Your task to perform on an android device: Open my contact list Image 0: 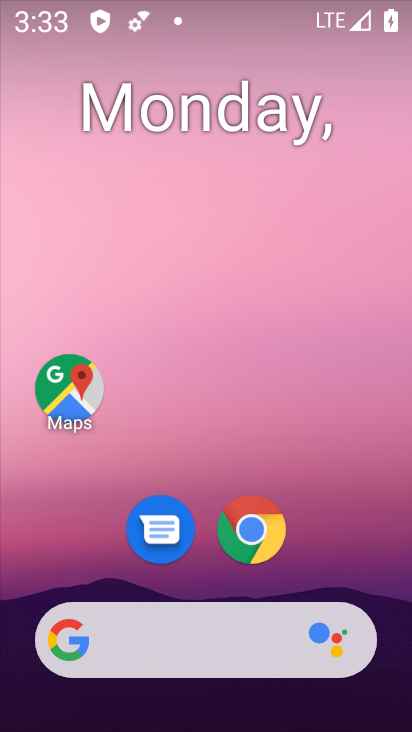
Step 0: click (249, 550)
Your task to perform on an android device: Open my contact list Image 1: 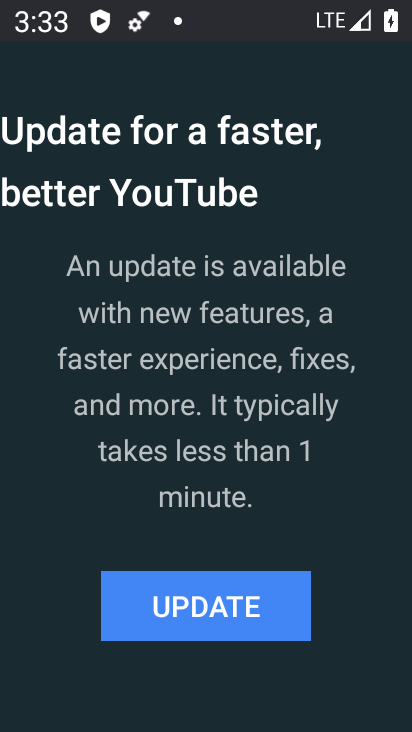
Step 1: press home button
Your task to perform on an android device: Open my contact list Image 2: 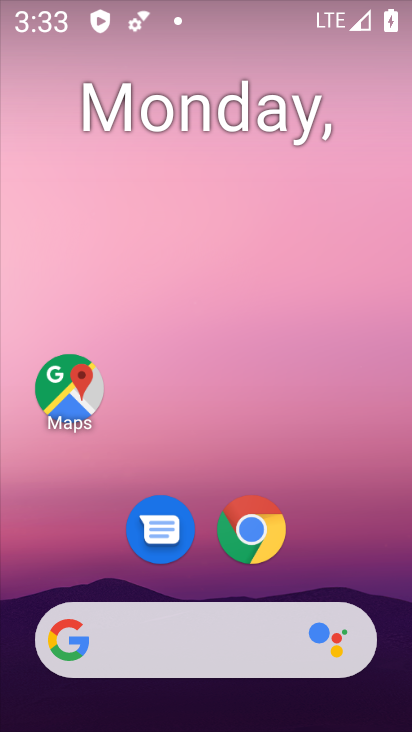
Step 2: drag from (205, 638) to (245, 109)
Your task to perform on an android device: Open my contact list Image 3: 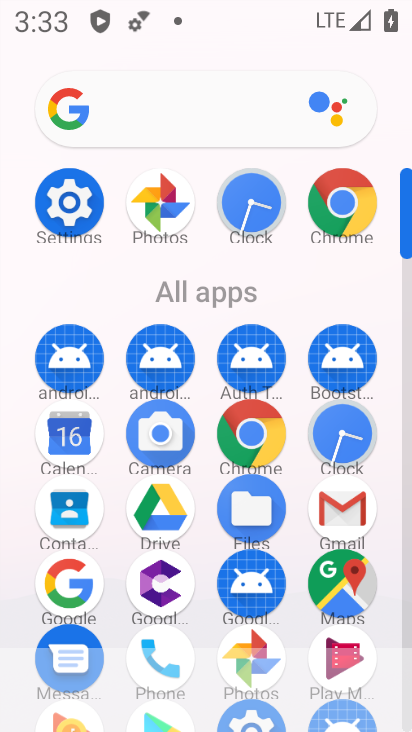
Step 3: click (85, 513)
Your task to perform on an android device: Open my contact list Image 4: 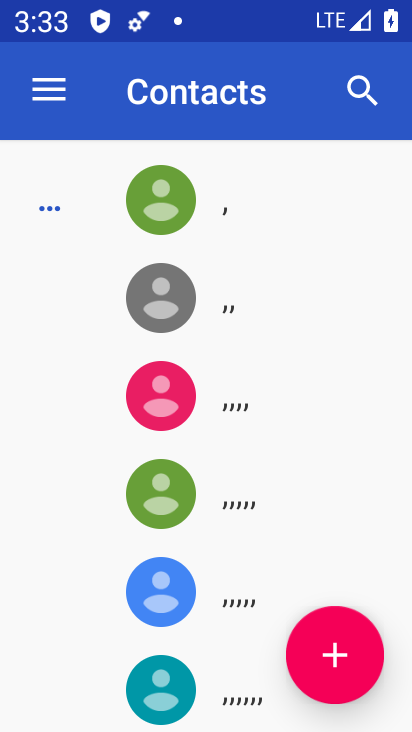
Step 4: task complete